Your task to perform on an android device: set default search engine in the chrome app Image 0: 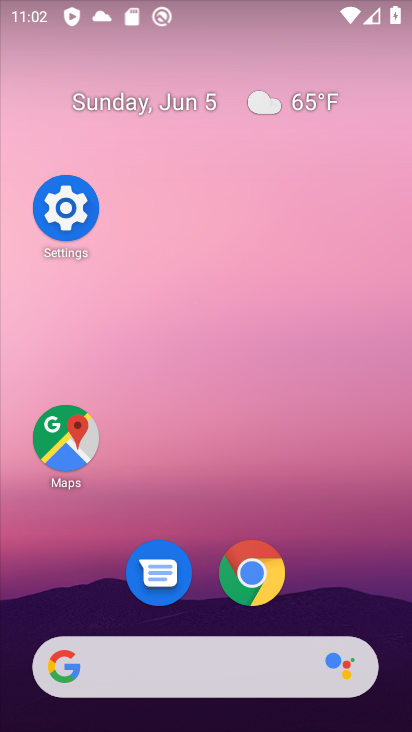
Step 0: click (267, 568)
Your task to perform on an android device: set default search engine in the chrome app Image 1: 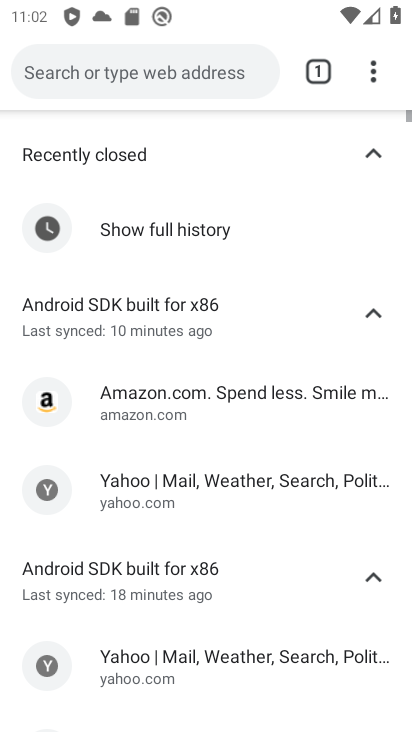
Step 1: click (383, 66)
Your task to perform on an android device: set default search engine in the chrome app Image 2: 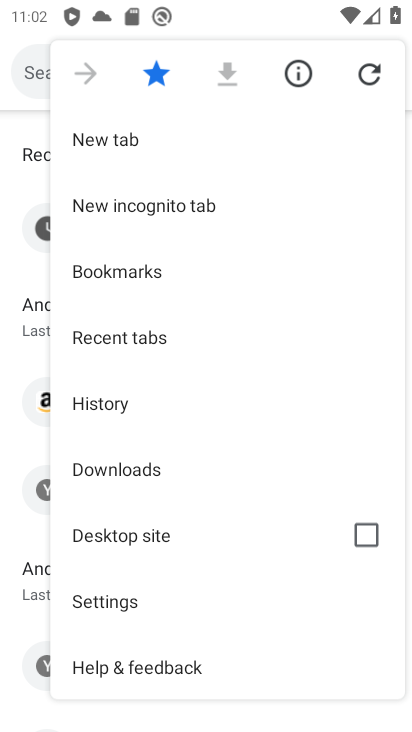
Step 2: click (80, 604)
Your task to perform on an android device: set default search engine in the chrome app Image 3: 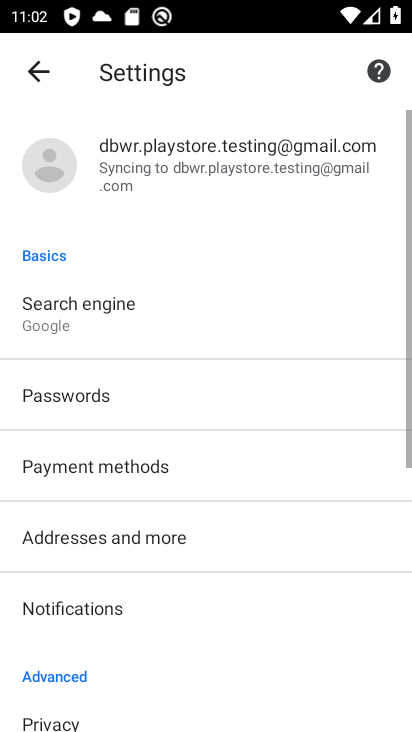
Step 3: click (111, 304)
Your task to perform on an android device: set default search engine in the chrome app Image 4: 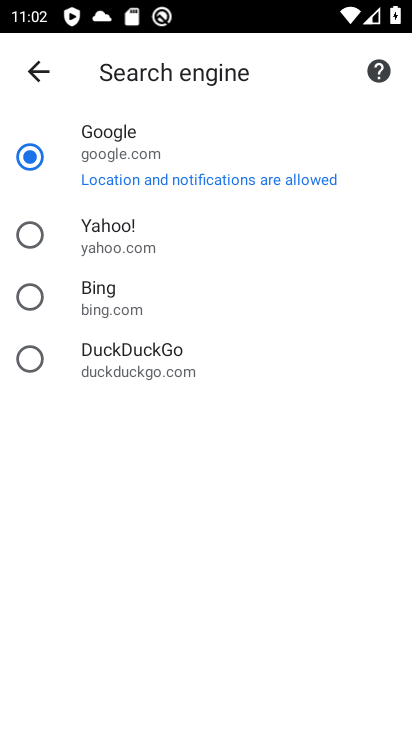
Step 4: task complete